Your task to perform on an android device: turn off data saver in the chrome app Image 0: 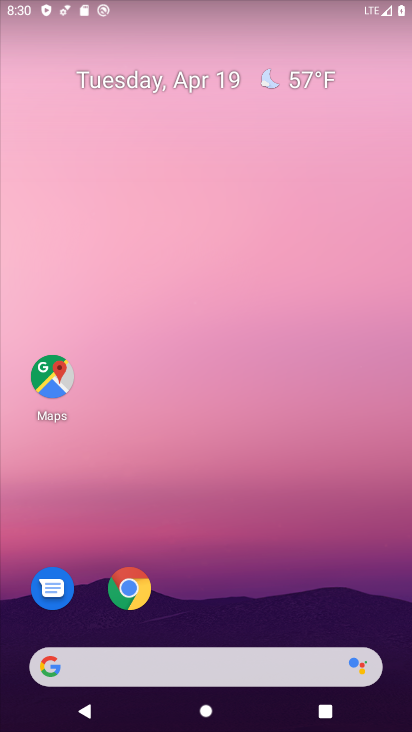
Step 0: click (141, 576)
Your task to perform on an android device: turn off data saver in the chrome app Image 1: 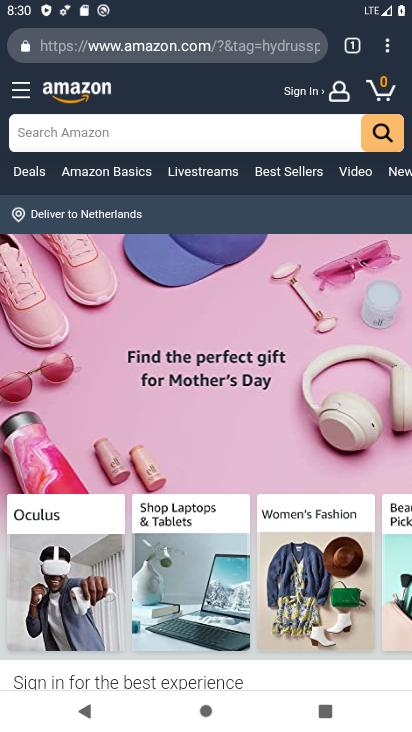
Step 1: click (389, 53)
Your task to perform on an android device: turn off data saver in the chrome app Image 2: 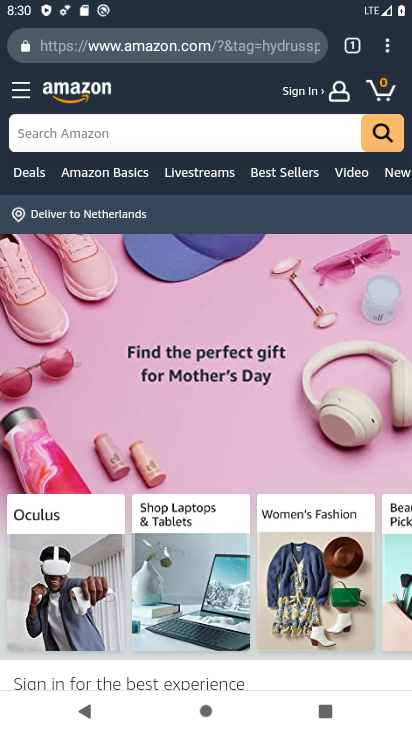
Step 2: click (387, 55)
Your task to perform on an android device: turn off data saver in the chrome app Image 3: 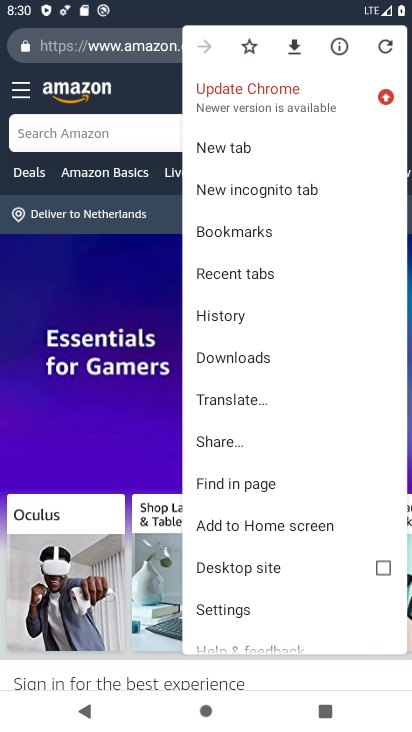
Step 3: click (300, 603)
Your task to perform on an android device: turn off data saver in the chrome app Image 4: 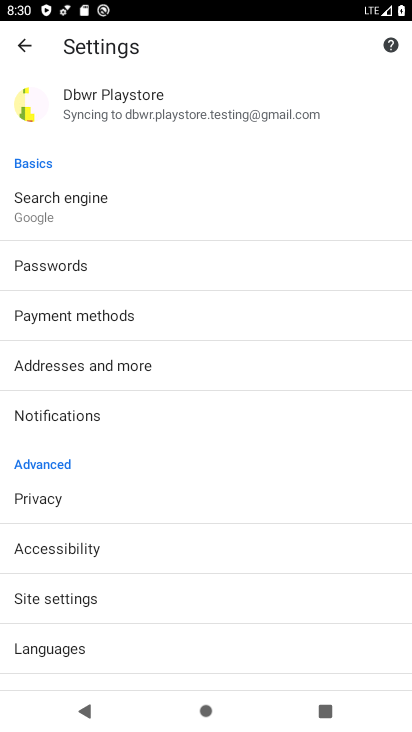
Step 4: drag from (170, 629) to (166, 497)
Your task to perform on an android device: turn off data saver in the chrome app Image 5: 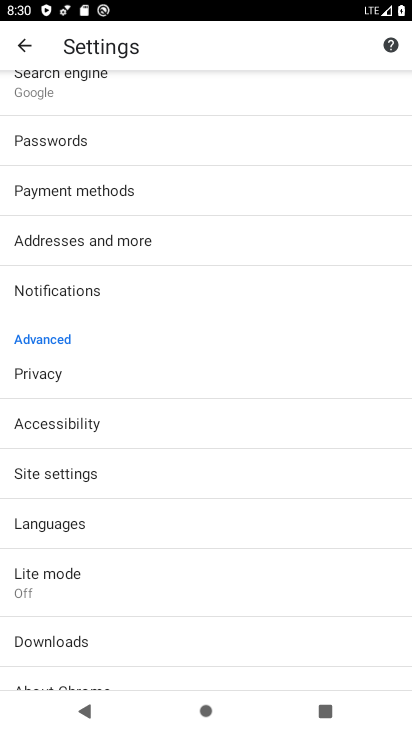
Step 5: click (88, 588)
Your task to perform on an android device: turn off data saver in the chrome app Image 6: 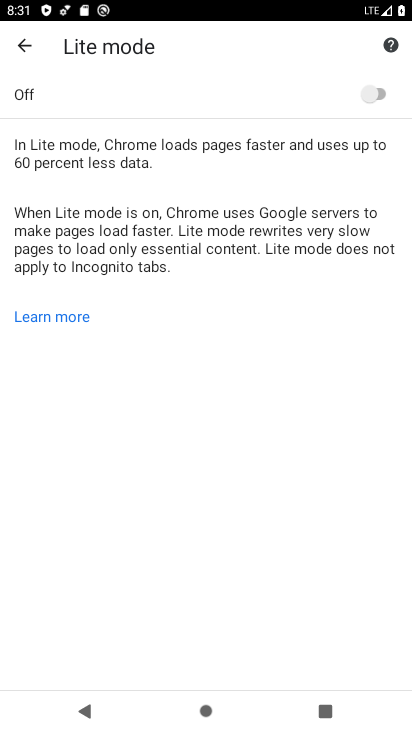
Step 6: task complete